Your task to perform on an android device: turn on translation in the chrome app Image 0: 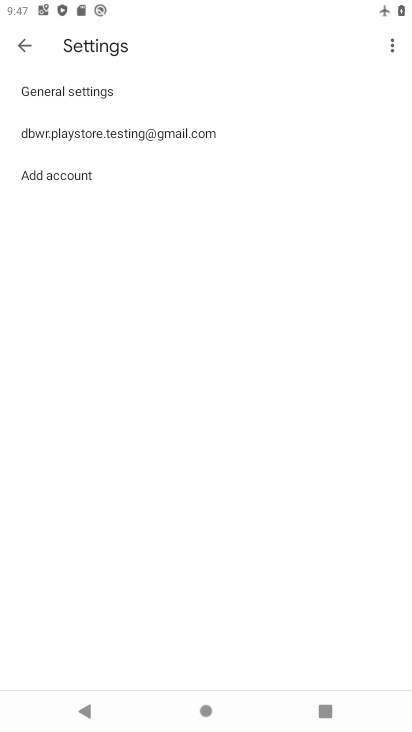
Step 0: press home button
Your task to perform on an android device: turn on translation in the chrome app Image 1: 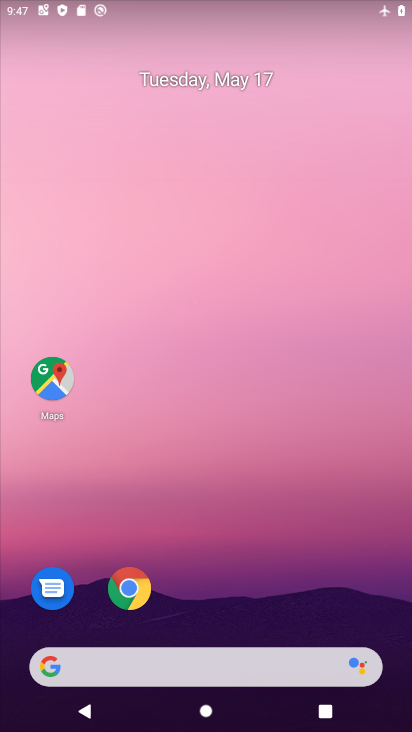
Step 1: click (132, 579)
Your task to perform on an android device: turn on translation in the chrome app Image 2: 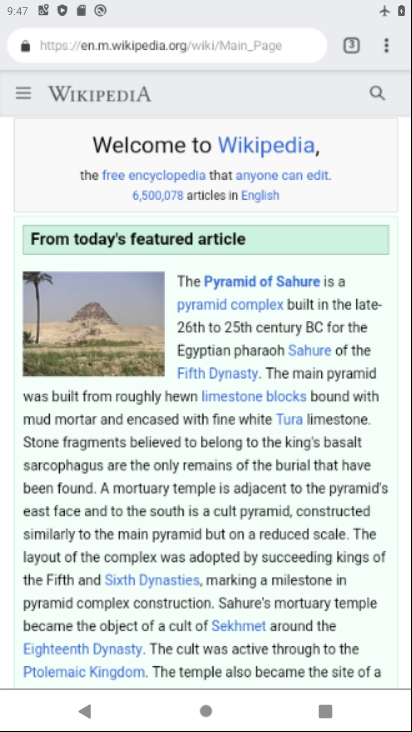
Step 2: click (386, 50)
Your task to perform on an android device: turn on translation in the chrome app Image 3: 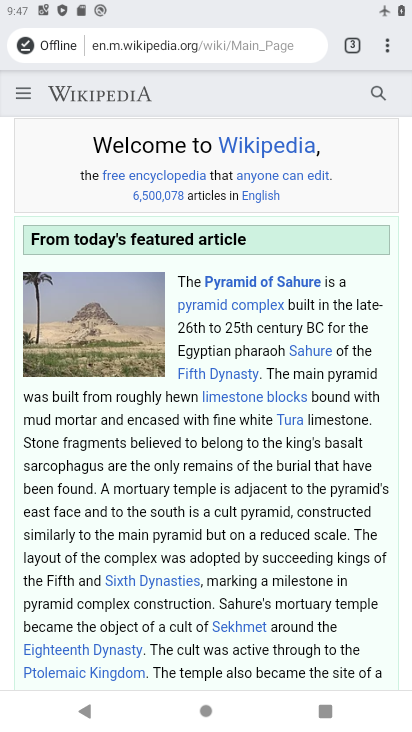
Step 3: click (384, 45)
Your task to perform on an android device: turn on translation in the chrome app Image 4: 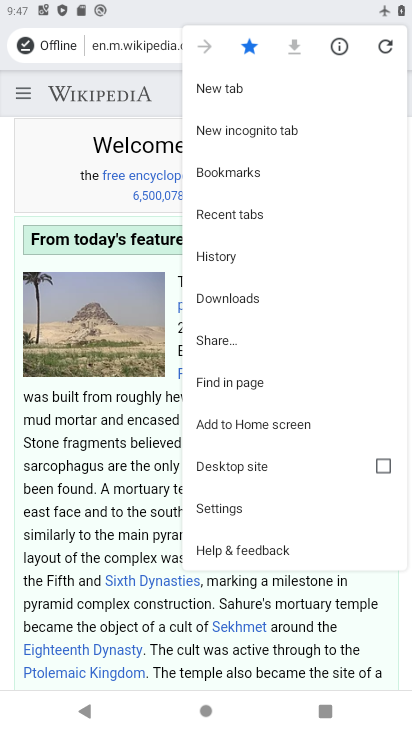
Step 4: click (233, 502)
Your task to perform on an android device: turn on translation in the chrome app Image 5: 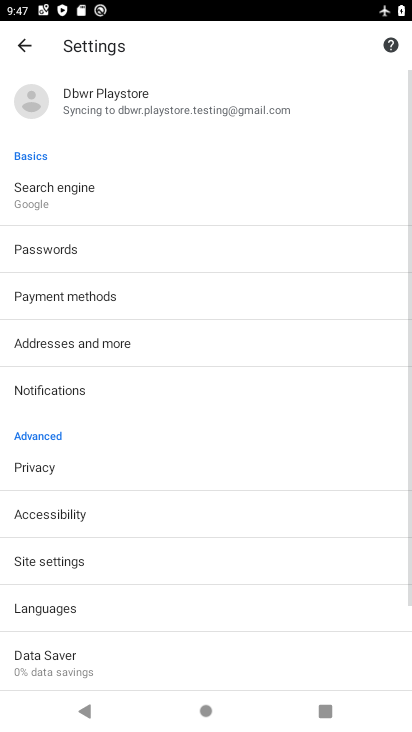
Step 5: click (72, 615)
Your task to perform on an android device: turn on translation in the chrome app Image 6: 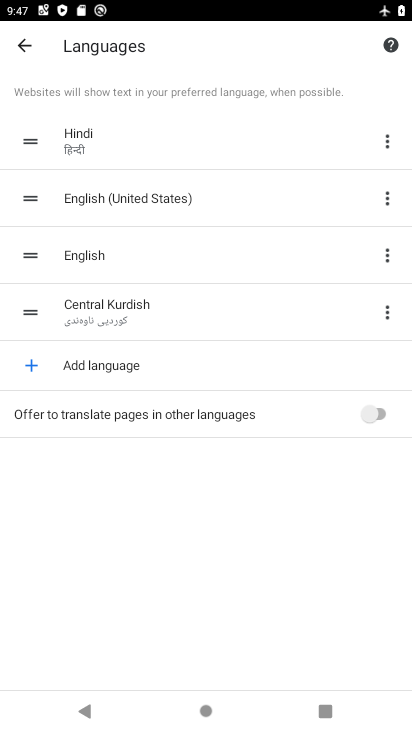
Step 6: click (376, 416)
Your task to perform on an android device: turn on translation in the chrome app Image 7: 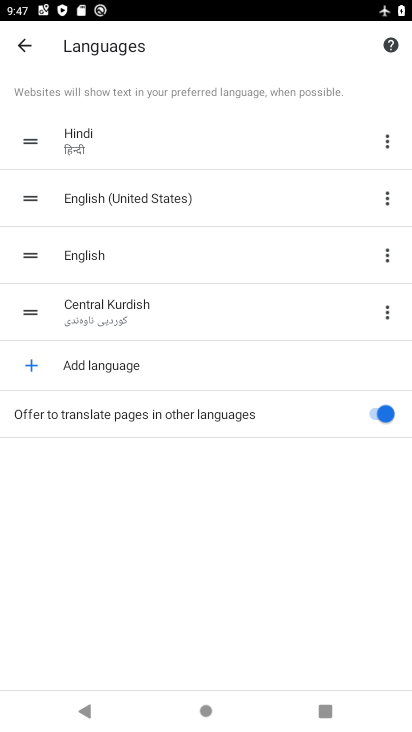
Step 7: task complete